Your task to perform on an android device: Open Chrome and go to the settings page Image 0: 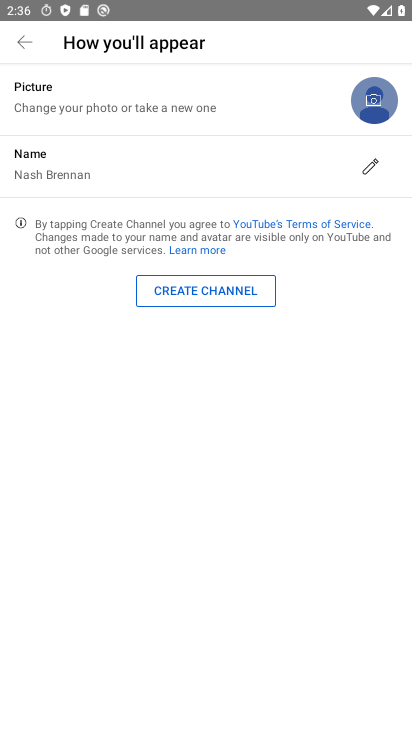
Step 0: press home button
Your task to perform on an android device: Open Chrome and go to the settings page Image 1: 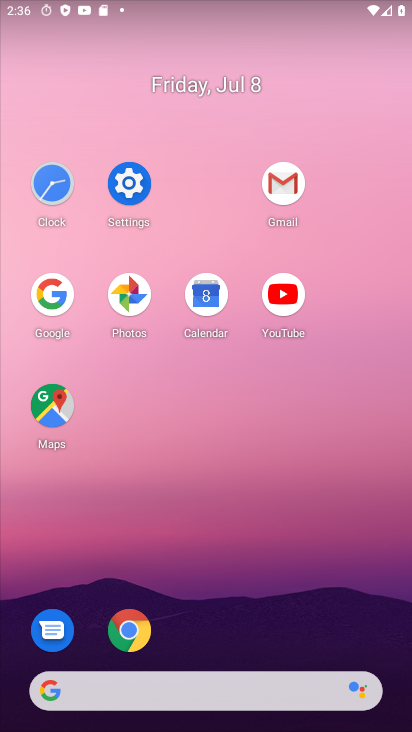
Step 1: click (133, 639)
Your task to perform on an android device: Open Chrome and go to the settings page Image 2: 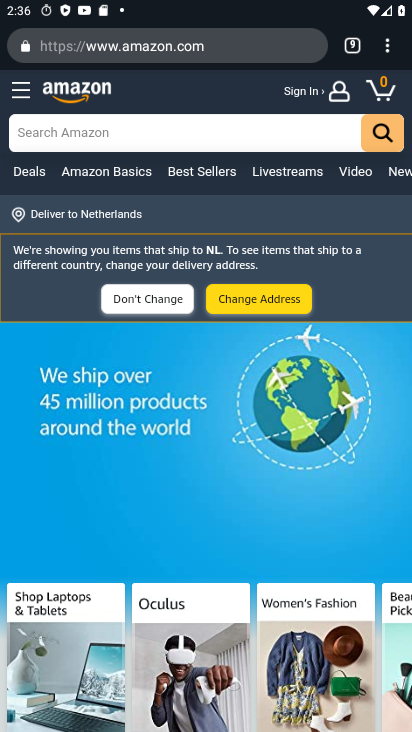
Step 2: click (384, 40)
Your task to perform on an android device: Open Chrome and go to the settings page Image 3: 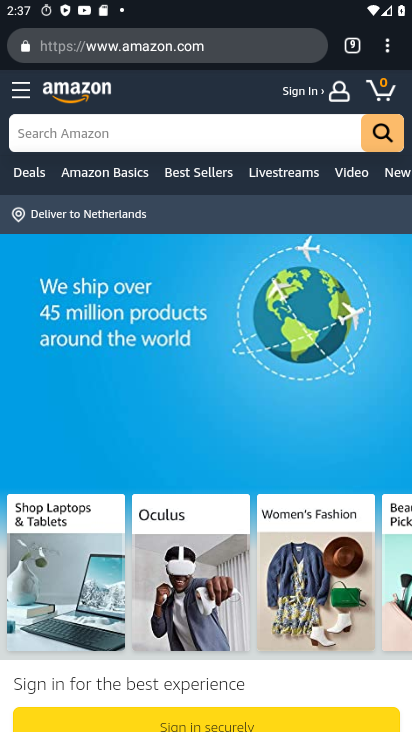
Step 3: click (384, 39)
Your task to perform on an android device: Open Chrome and go to the settings page Image 4: 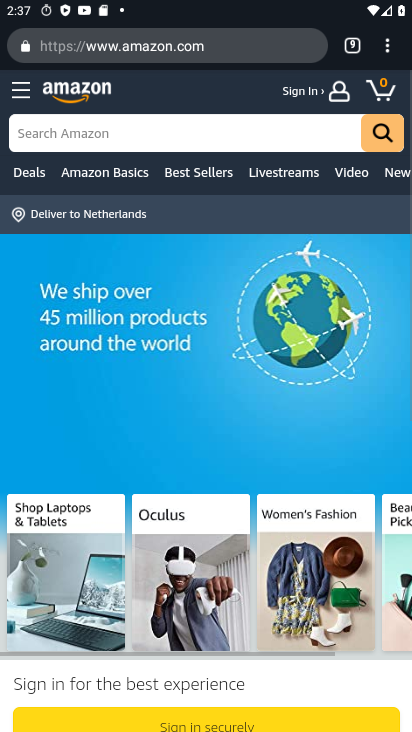
Step 4: click (386, 46)
Your task to perform on an android device: Open Chrome and go to the settings page Image 5: 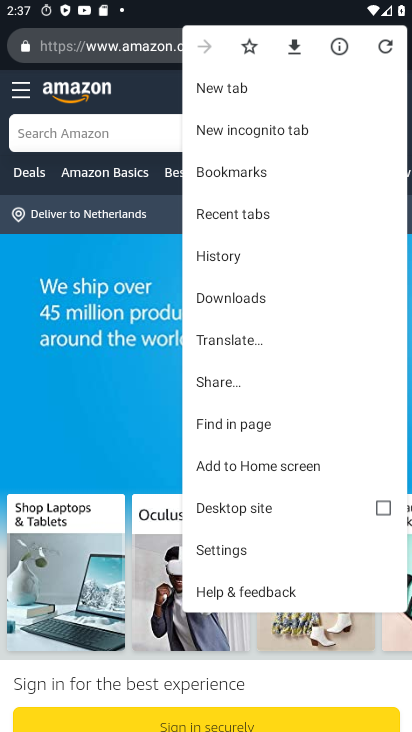
Step 5: click (228, 549)
Your task to perform on an android device: Open Chrome and go to the settings page Image 6: 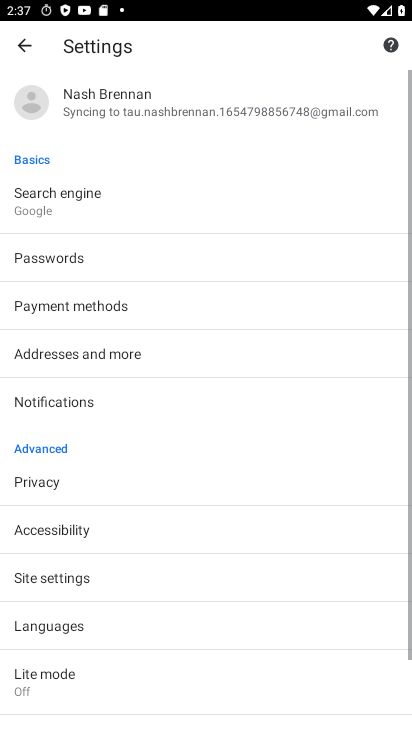
Step 6: task complete